Your task to perform on an android device: Open settings Image 0: 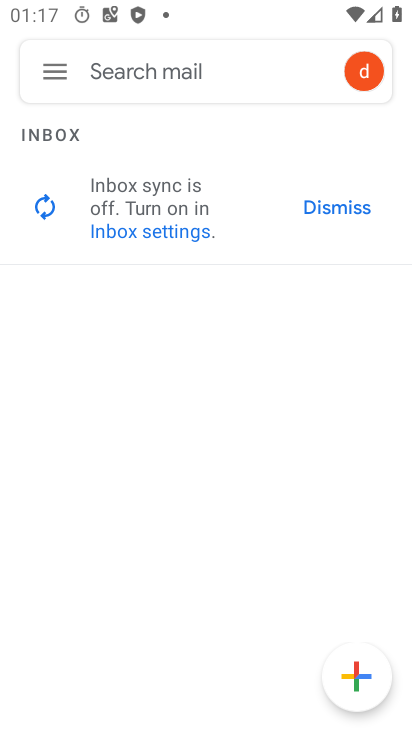
Step 0: drag from (382, 625) to (411, 311)
Your task to perform on an android device: Open settings Image 1: 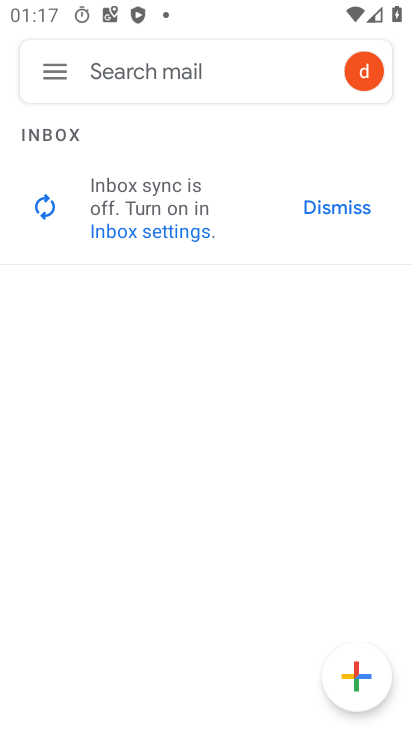
Step 1: press home button
Your task to perform on an android device: Open settings Image 2: 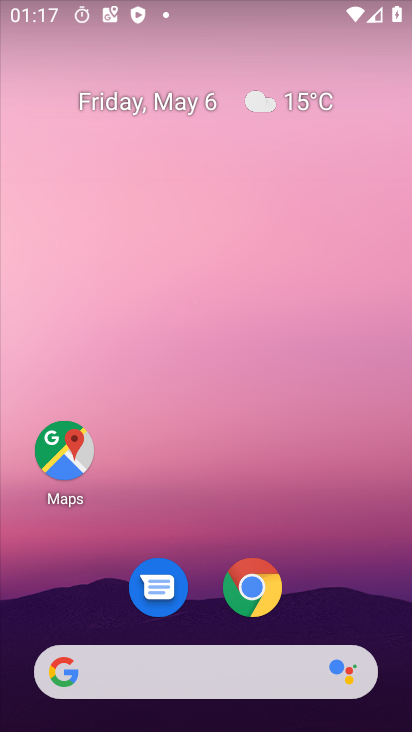
Step 2: drag from (395, 343) to (400, 254)
Your task to perform on an android device: Open settings Image 3: 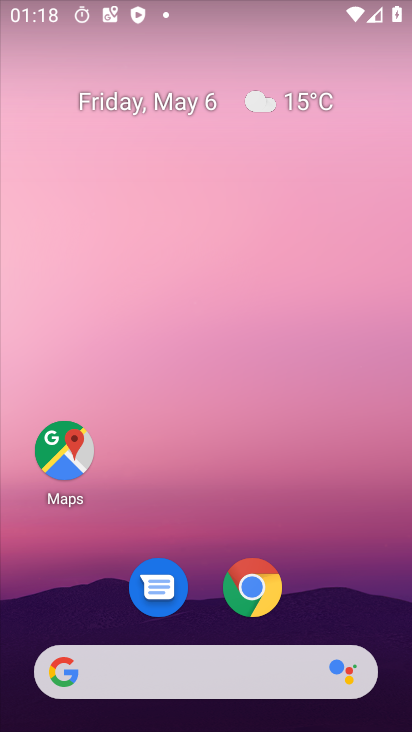
Step 3: drag from (407, 344) to (411, 139)
Your task to perform on an android device: Open settings Image 4: 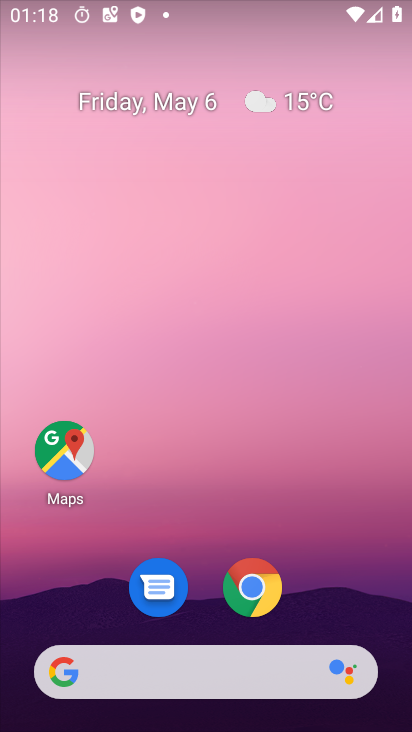
Step 4: drag from (380, 629) to (392, 295)
Your task to perform on an android device: Open settings Image 5: 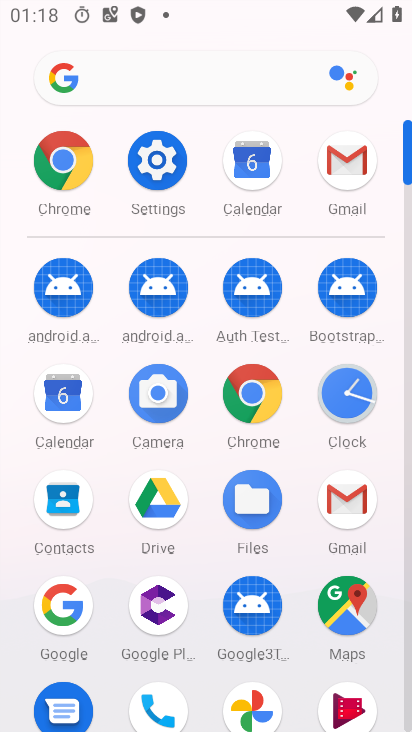
Step 5: click (147, 167)
Your task to perform on an android device: Open settings Image 6: 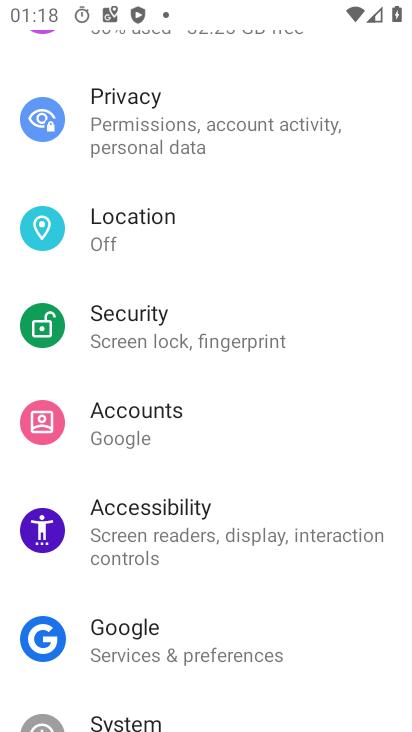
Step 6: task complete